Your task to perform on an android device: Check the weather Image 0: 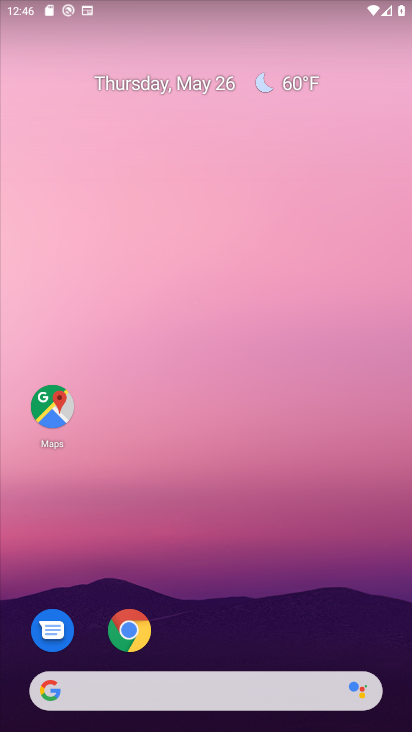
Step 0: drag from (234, 570) to (191, 23)
Your task to perform on an android device: Check the weather Image 1: 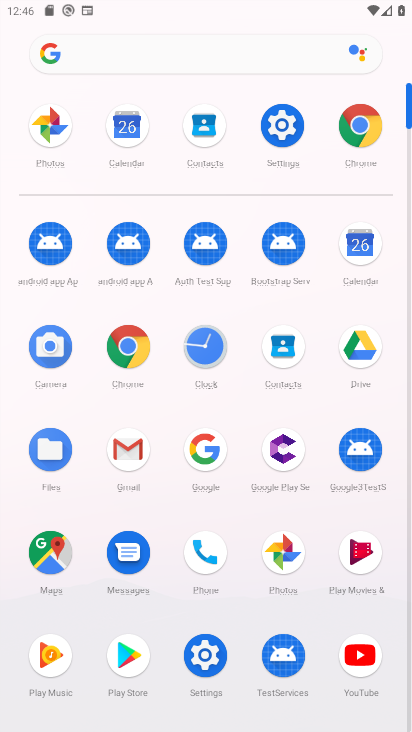
Step 1: click (53, 54)
Your task to perform on an android device: Check the weather Image 2: 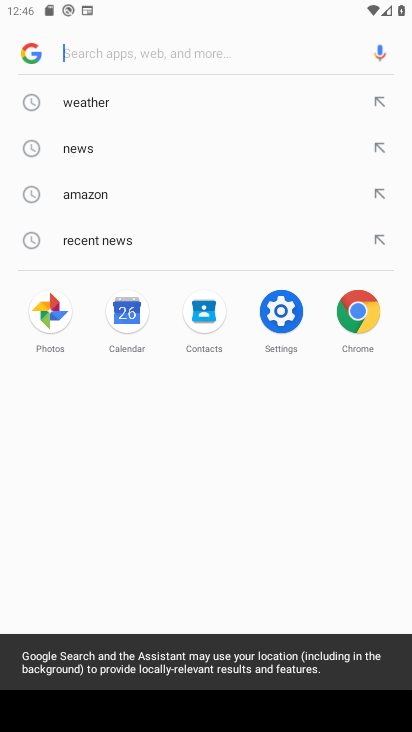
Step 2: click (53, 53)
Your task to perform on an android device: Check the weather Image 3: 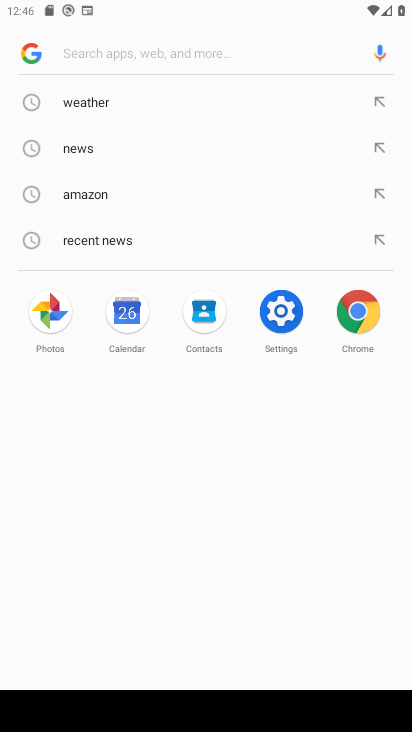
Step 3: click (44, 60)
Your task to perform on an android device: Check the weather Image 4: 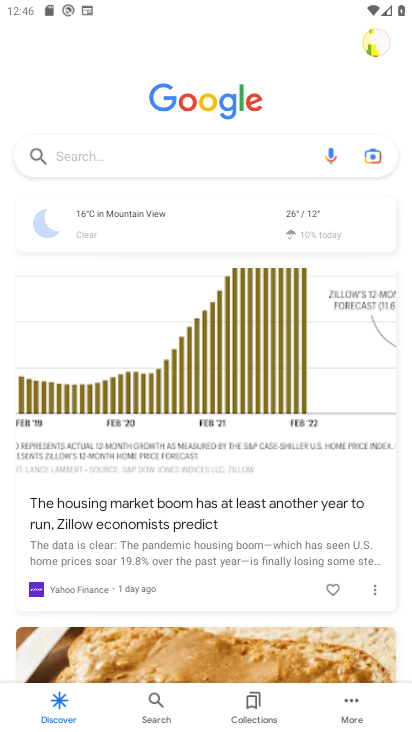
Step 4: click (126, 221)
Your task to perform on an android device: Check the weather Image 5: 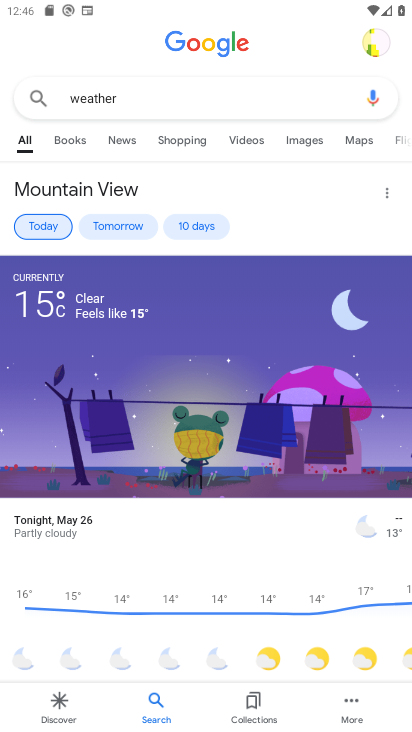
Step 5: task complete